Your task to perform on an android device: Go to internet settings Image 0: 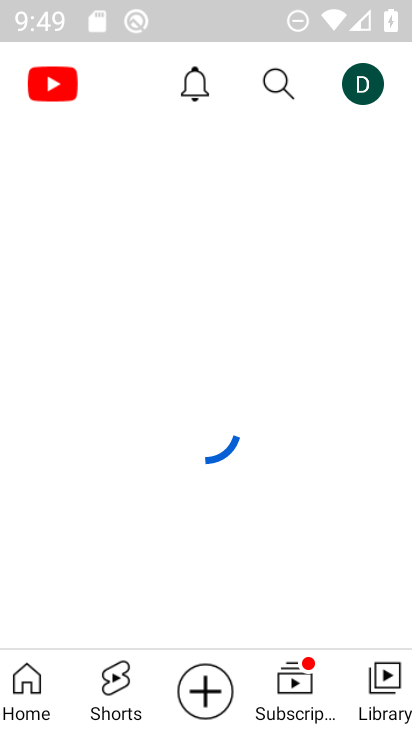
Step 0: click (381, 155)
Your task to perform on an android device: Go to internet settings Image 1: 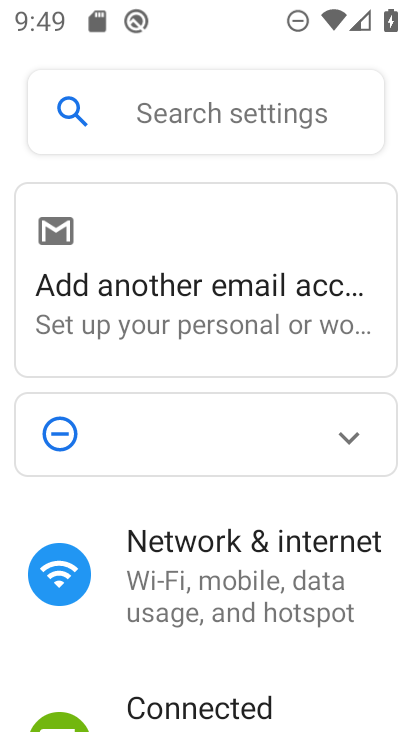
Step 1: drag from (395, 711) to (341, 214)
Your task to perform on an android device: Go to internet settings Image 2: 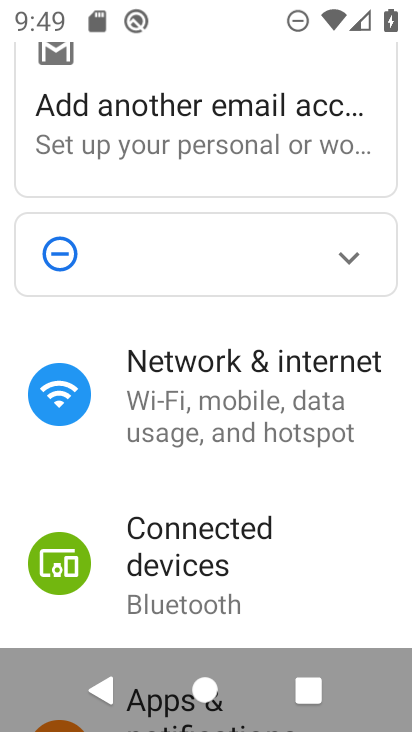
Step 2: press home button
Your task to perform on an android device: Go to internet settings Image 3: 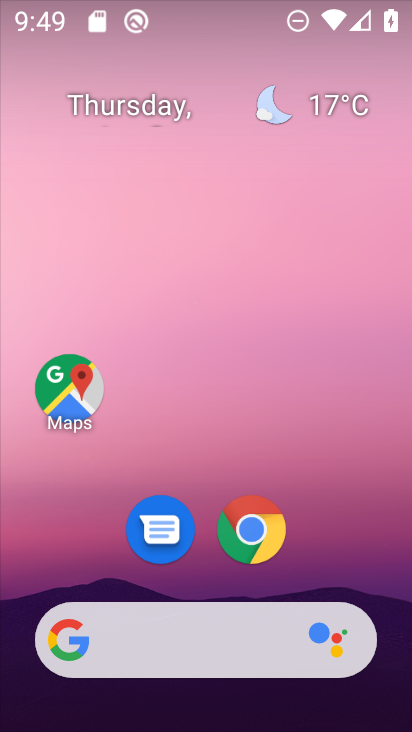
Step 3: drag from (386, 643) to (321, 122)
Your task to perform on an android device: Go to internet settings Image 4: 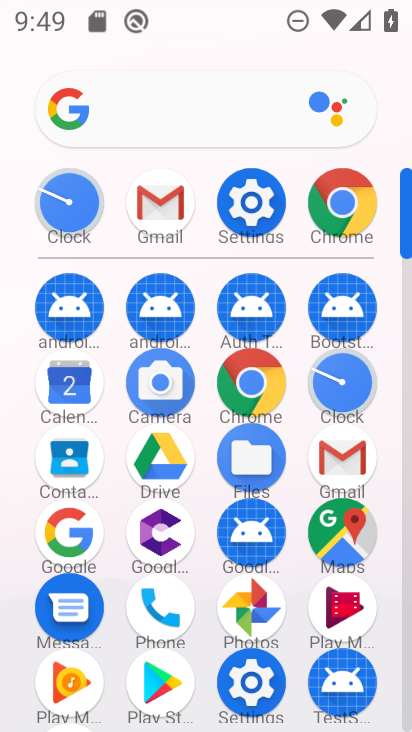
Step 4: click (242, 201)
Your task to perform on an android device: Go to internet settings Image 5: 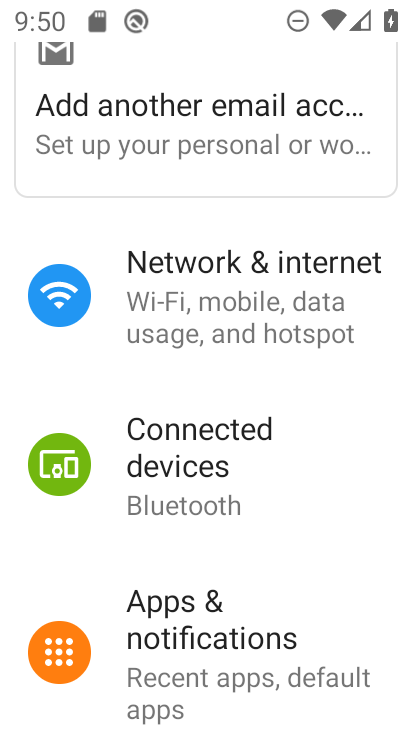
Step 5: click (206, 279)
Your task to perform on an android device: Go to internet settings Image 6: 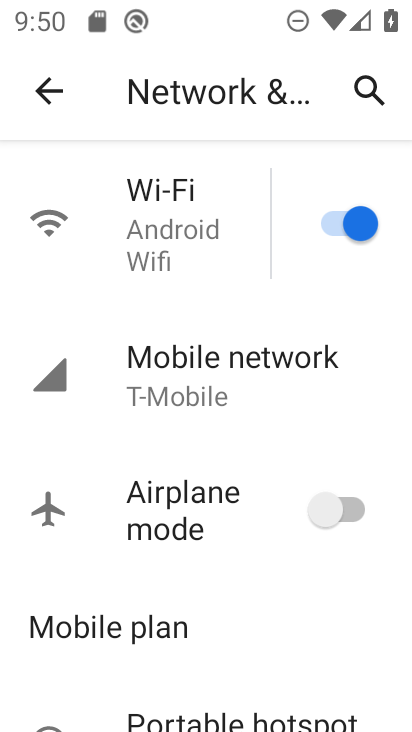
Step 6: drag from (247, 594) to (226, 203)
Your task to perform on an android device: Go to internet settings Image 7: 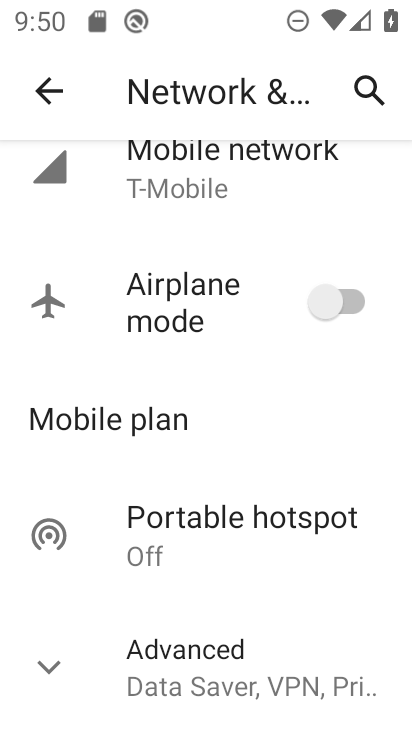
Step 7: click (32, 654)
Your task to perform on an android device: Go to internet settings Image 8: 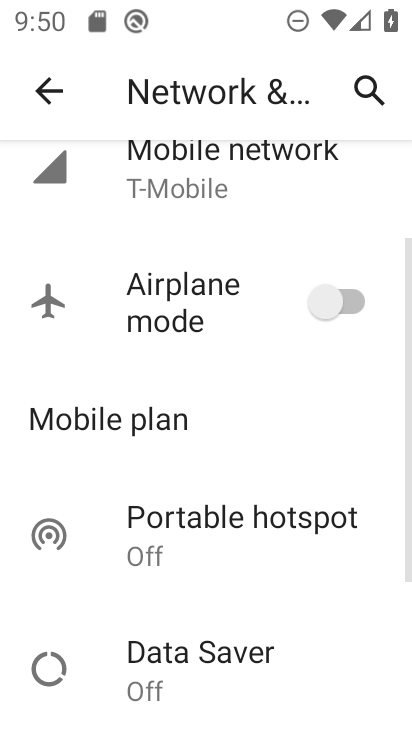
Step 8: task complete